Your task to perform on an android device: toggle show notifications on the lock screen Image 0: 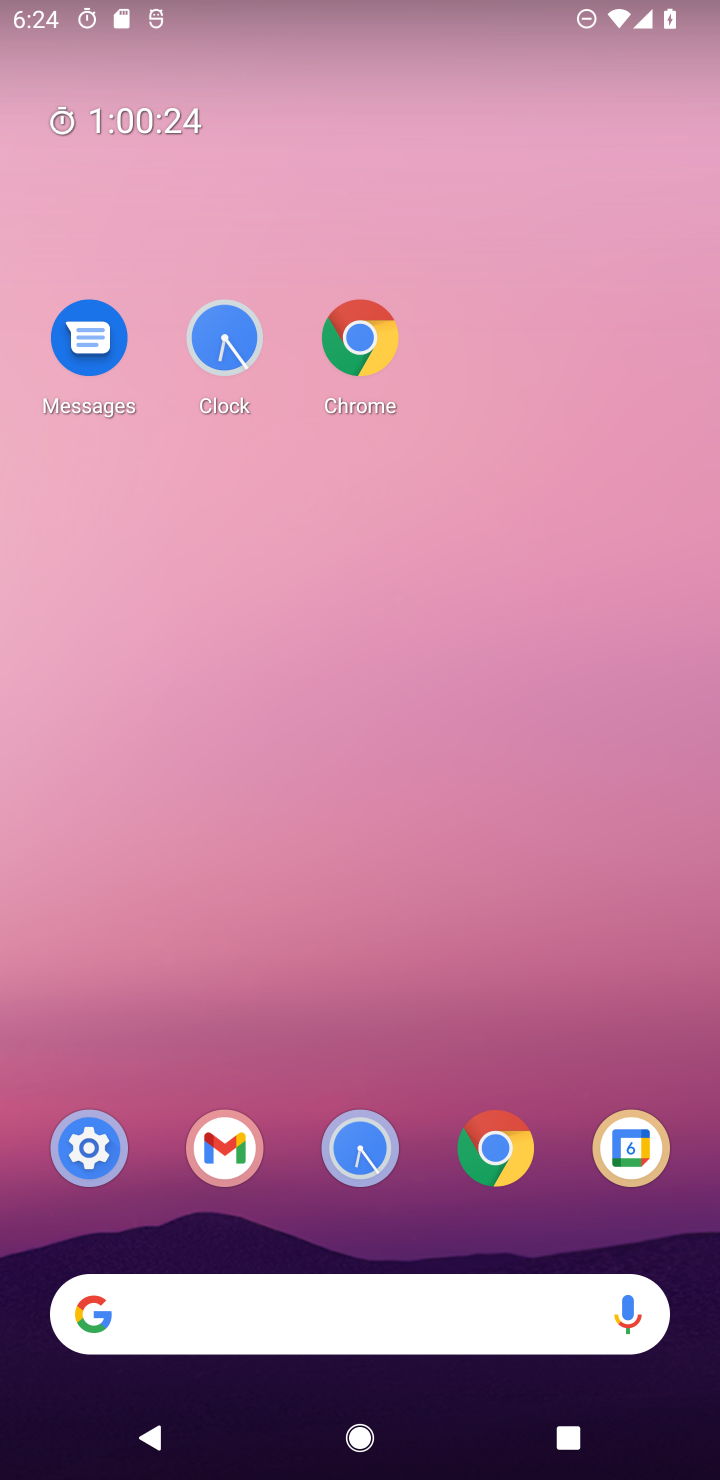
Step 0: drag from (408, 1035) to (505, 179)
Your task to perform on an android device: toggle show notifications on the lock screen Image 1: 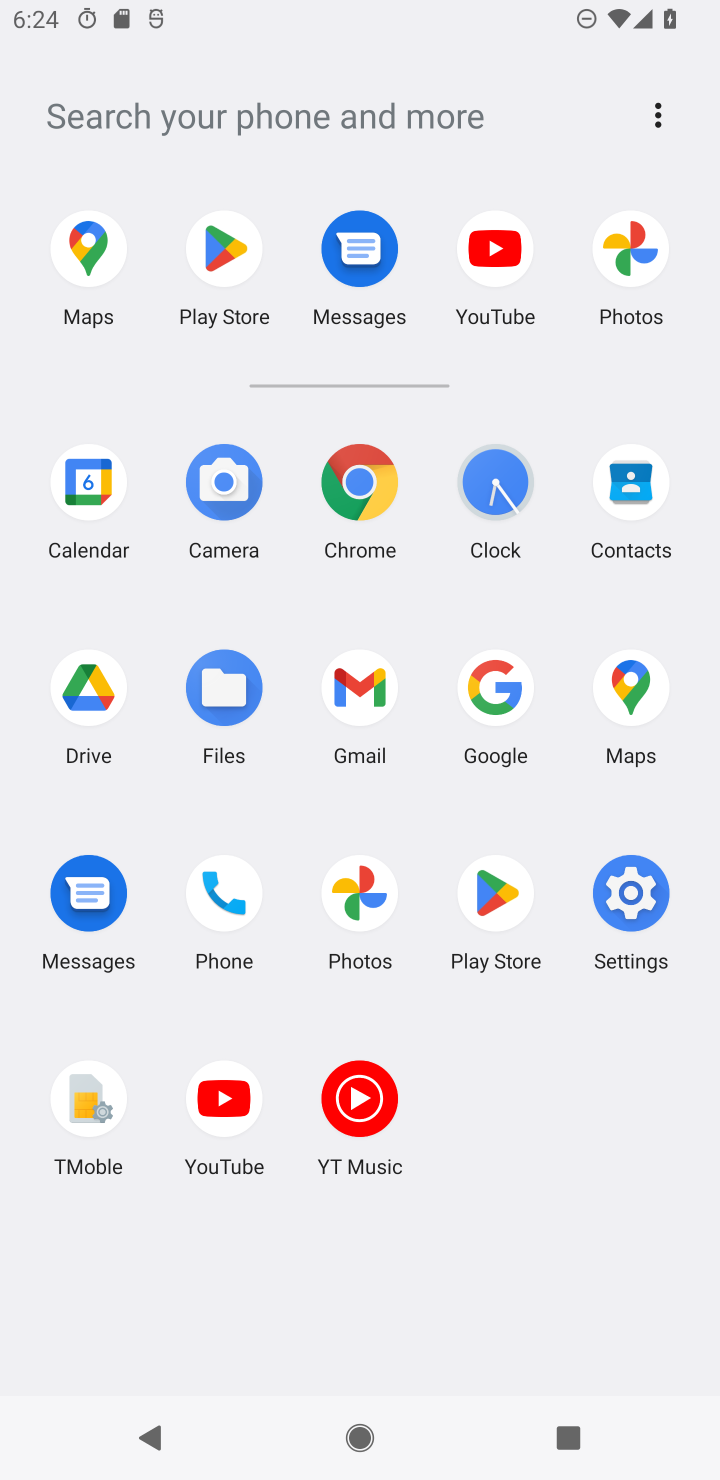
Step 1: click (640, 880)
Your task to perform on an android device: toggle show notifications on the lock screen Image 2: 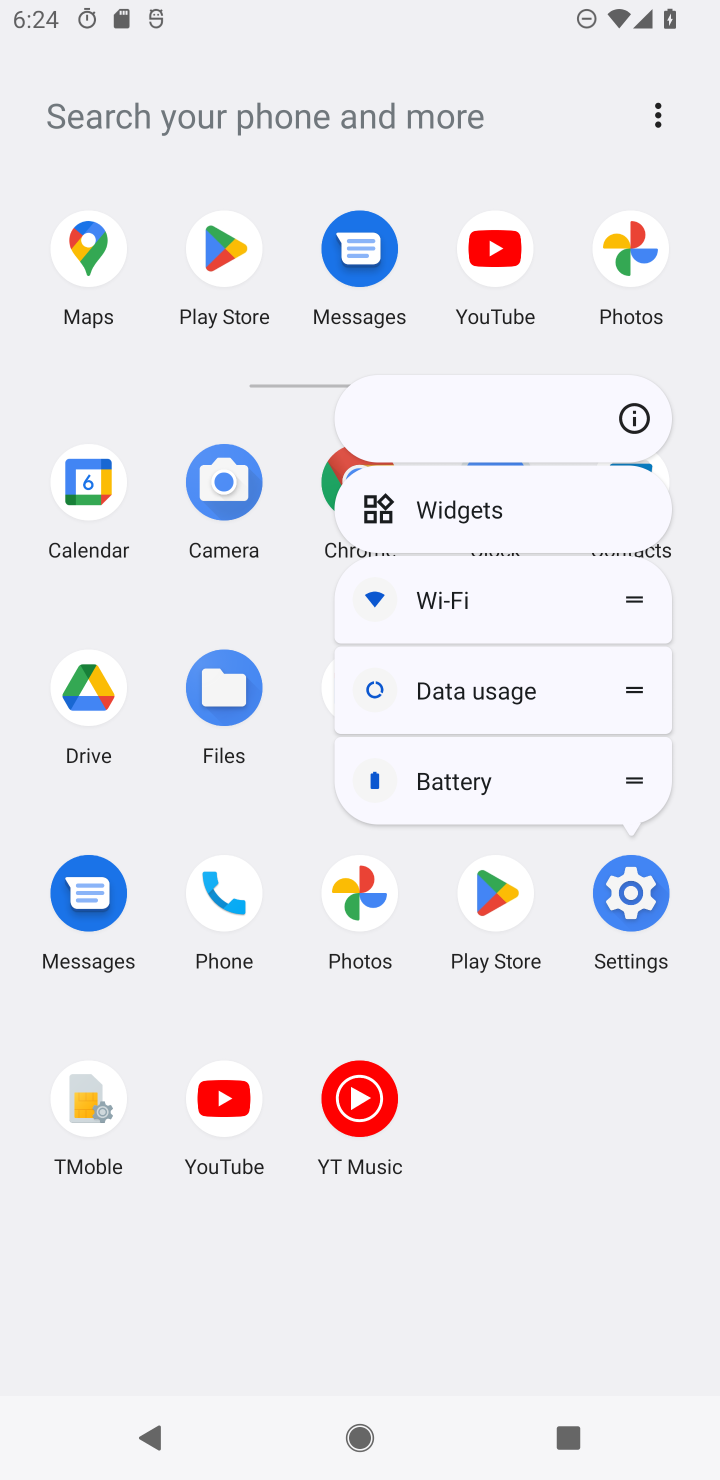
Step 2: click (634, 419)
Your task to perform on an android device: toggle show notifications on the lock screen Image 3: 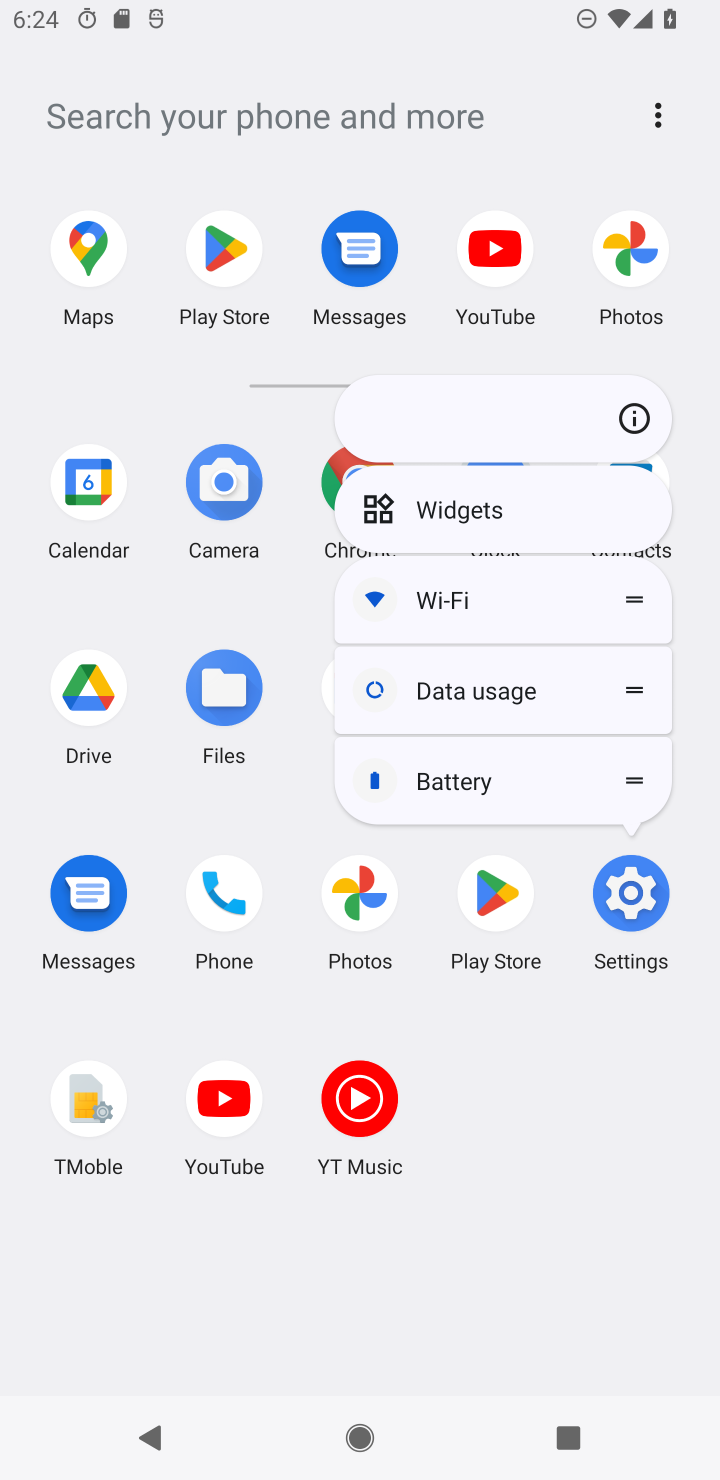
Step 3: click (639, 897)
Your task to perform on an android device: toggle show notifications on the lock screen Image 4: 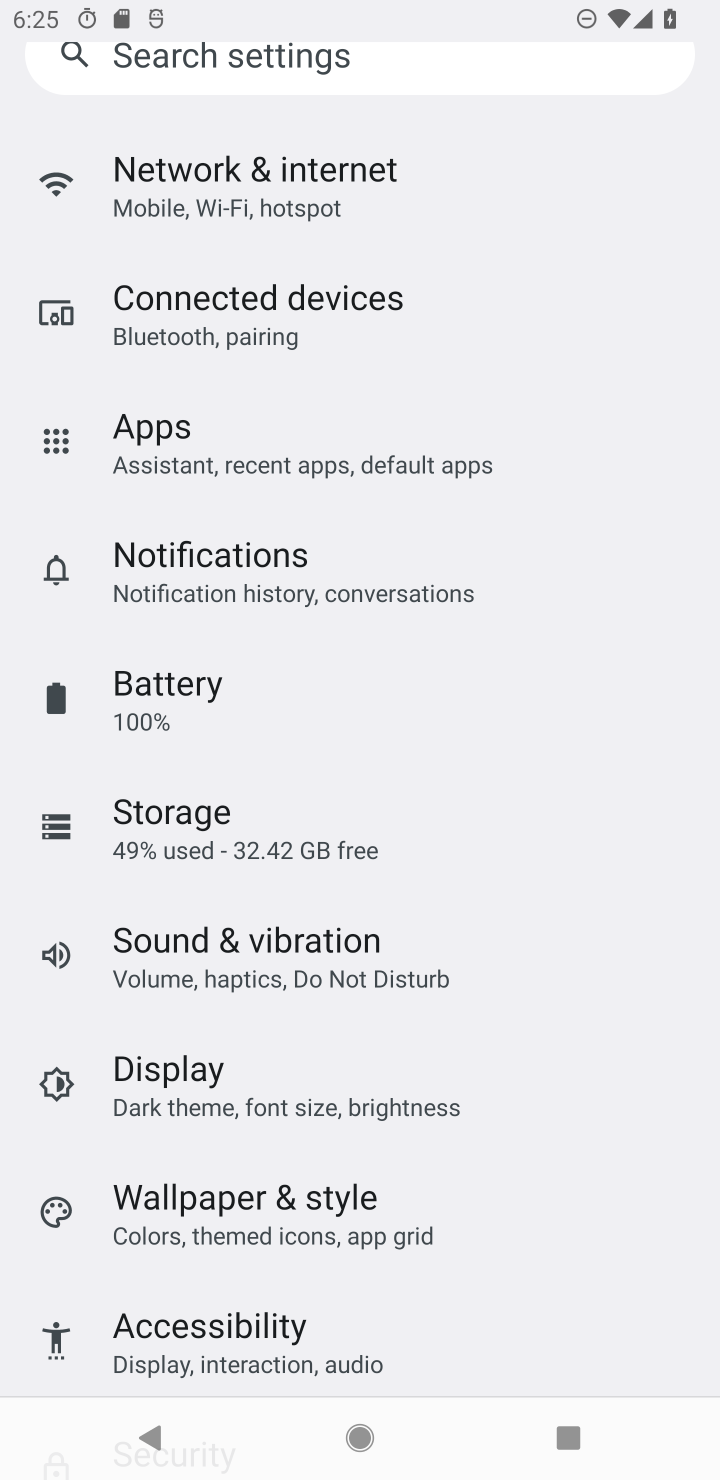
Step 4: click (287, 569)
Your task to perform on an android device: toggle show notifications on the lock screen Image 5: 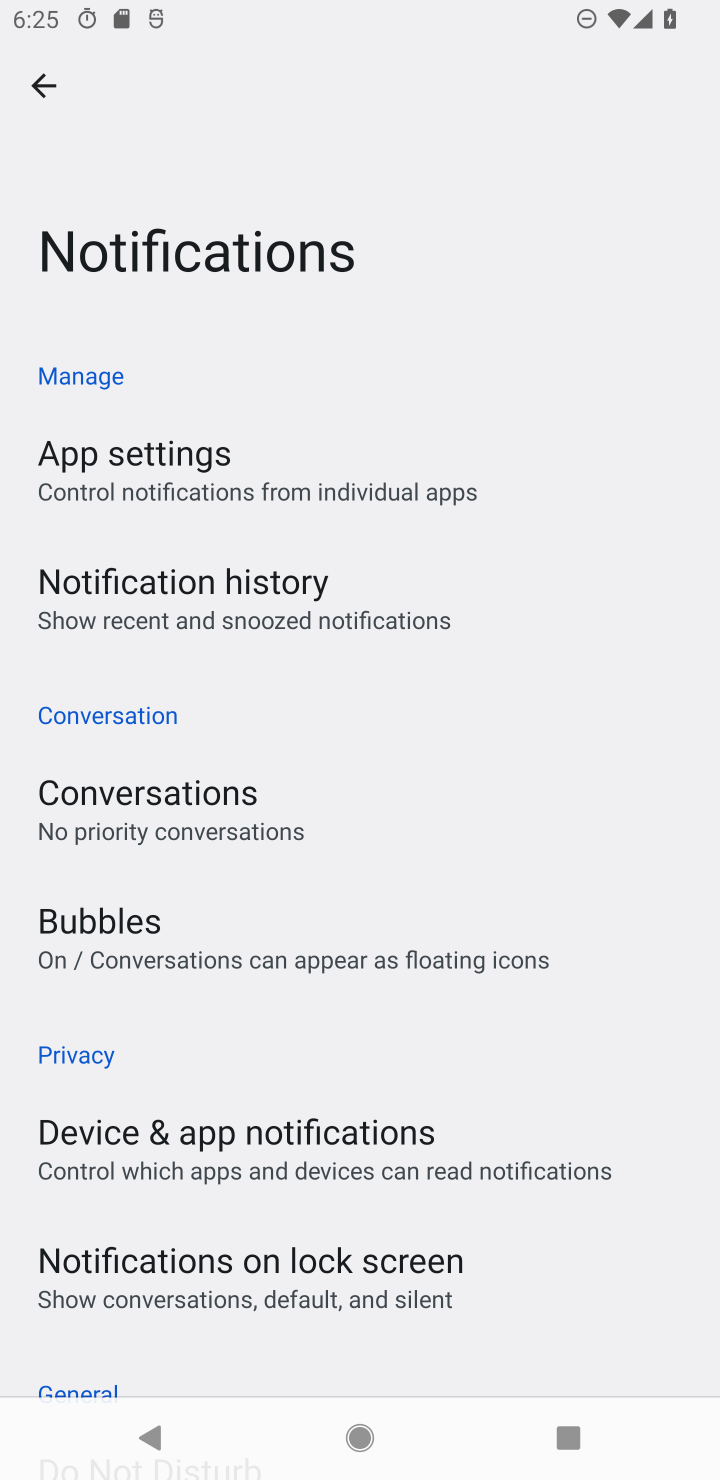
Step 5: drag from (378, 951) to (352, 720)
Your task to perform on an android device: toggle show notifications on the lock screen Image 6: 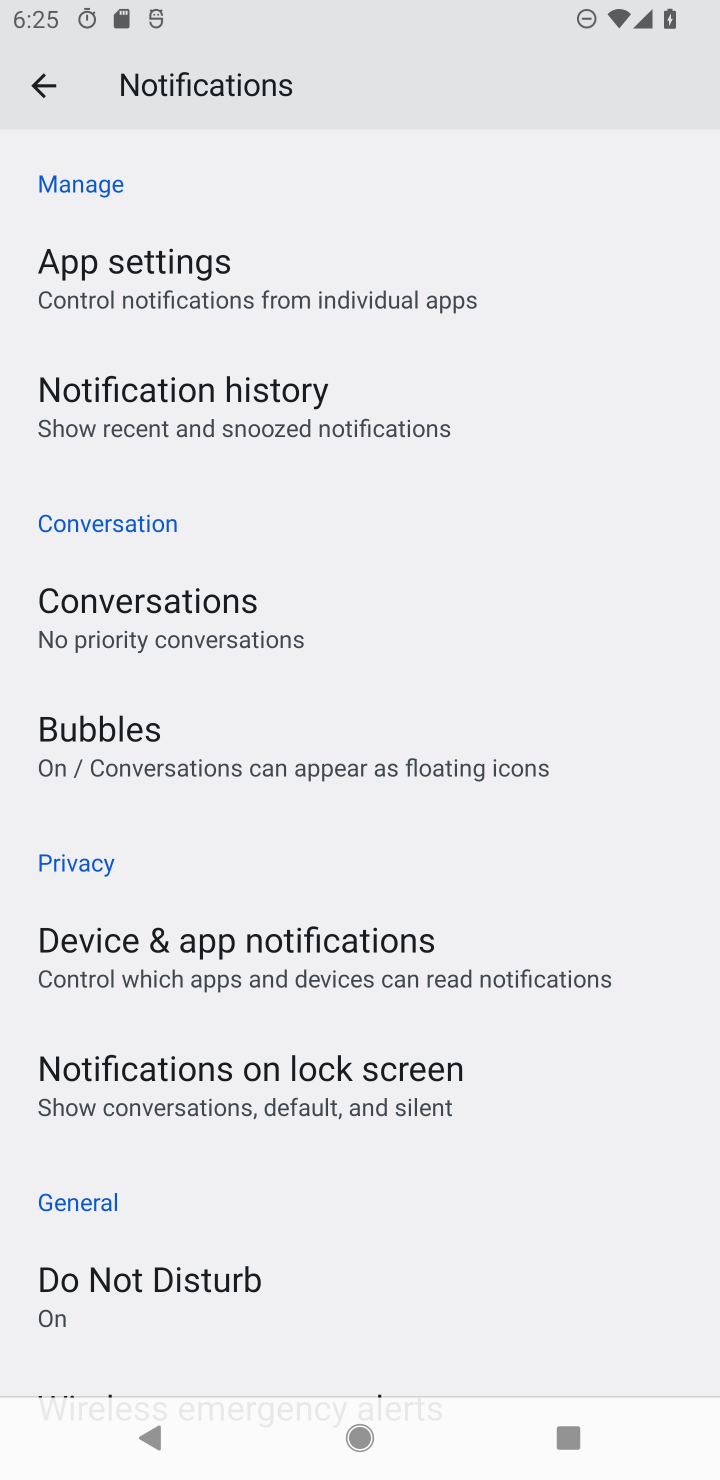
Step 6: drag from (363, 997) to (411, 409)
Your task to perform on an android device: toggle show notifications on the lock screen Image 7: 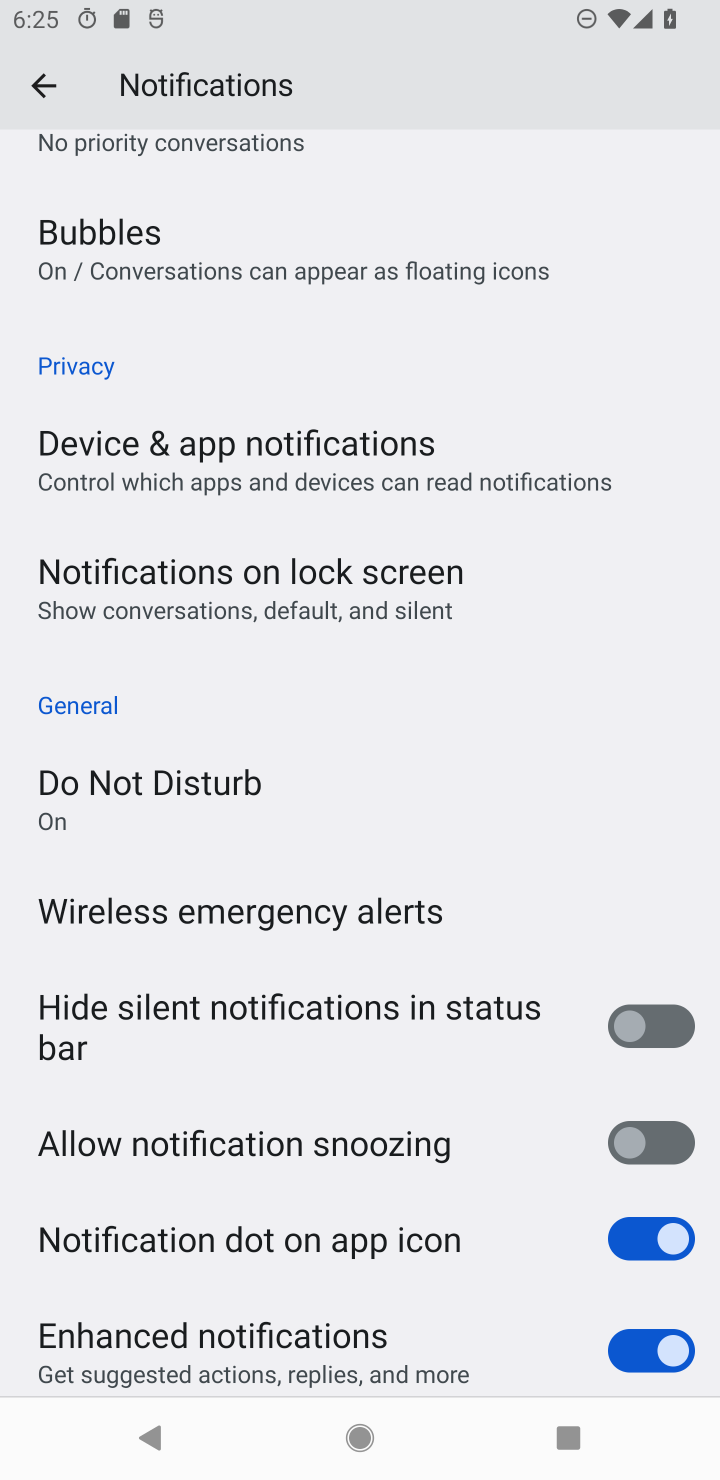
Step 7: click (282, 606)
Your task to perform on an android device: toggle show notifications on the lock screen Image 8: 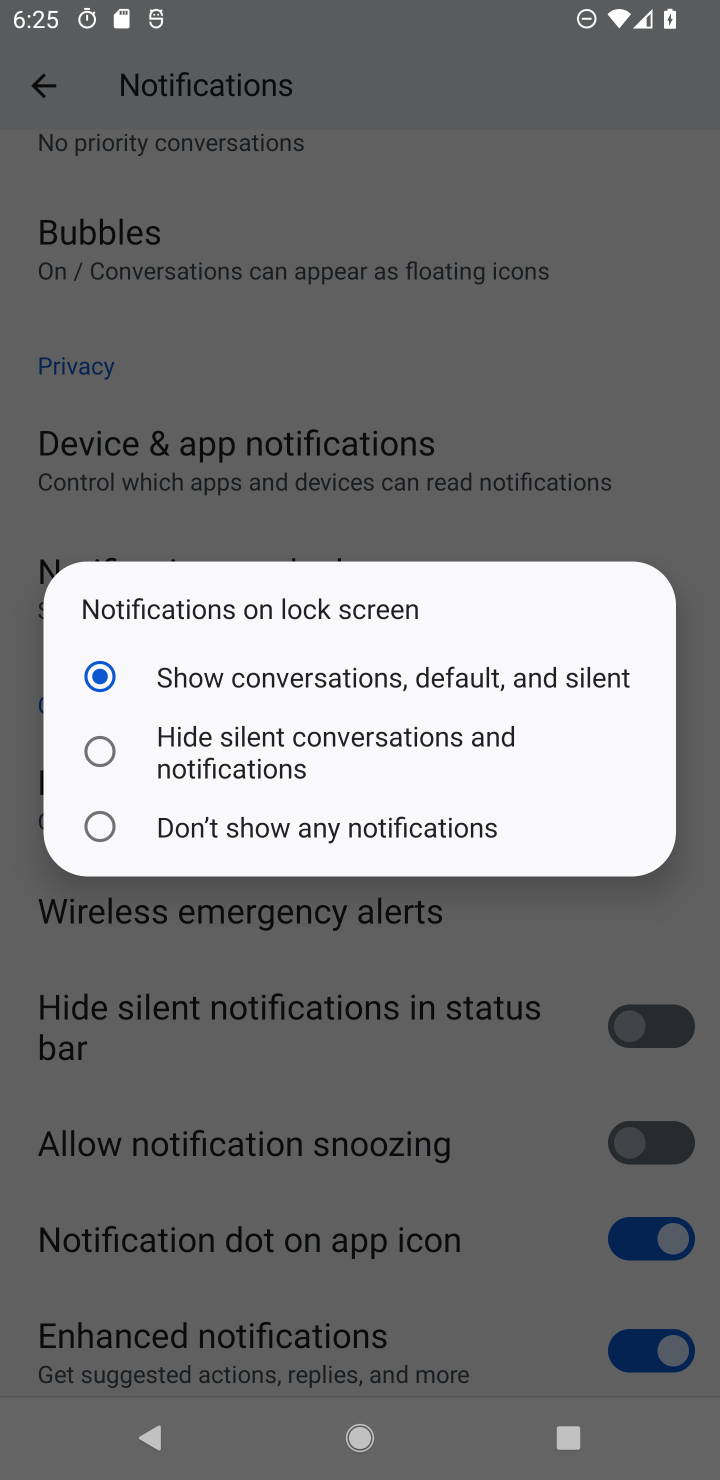
Step 8: task complete